Your task to perform on an android device: open sync settings in chrome Image 0: 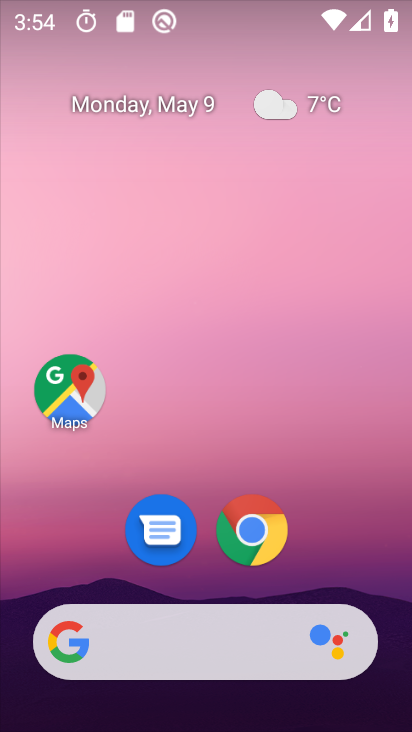
Step 0: click (236, 533)
Your task to perform on an android device: open sync settings in chrome Image 1: 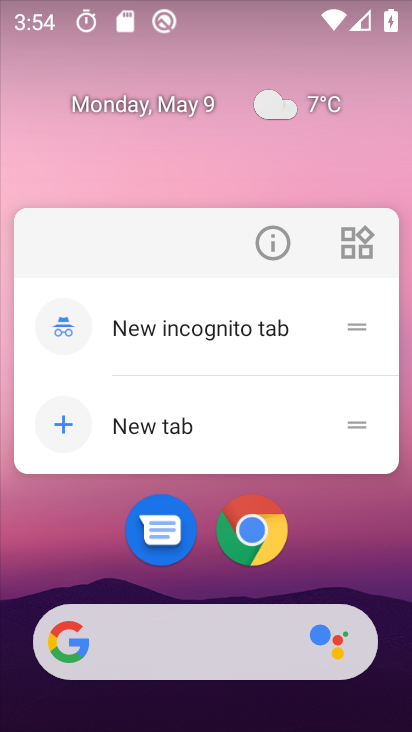
Step 1: click (246, 528)
Your task to perform on an android device: open sync settings in chrome Image 2: 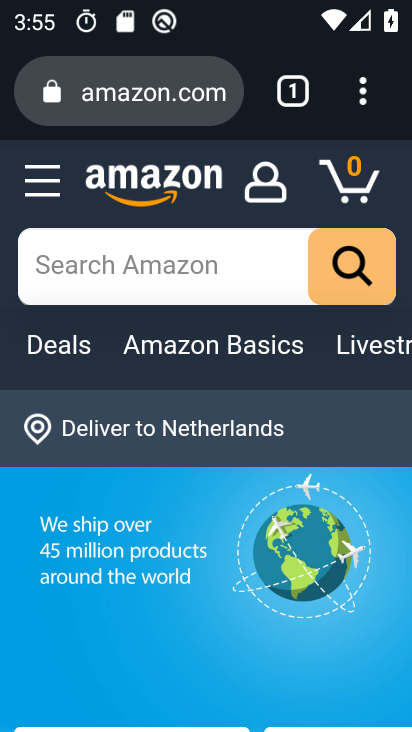
Step 2: drag from (366, 89) to (93, 554)
Your task to perform on an android device: open sync settings in chrome Image 3: 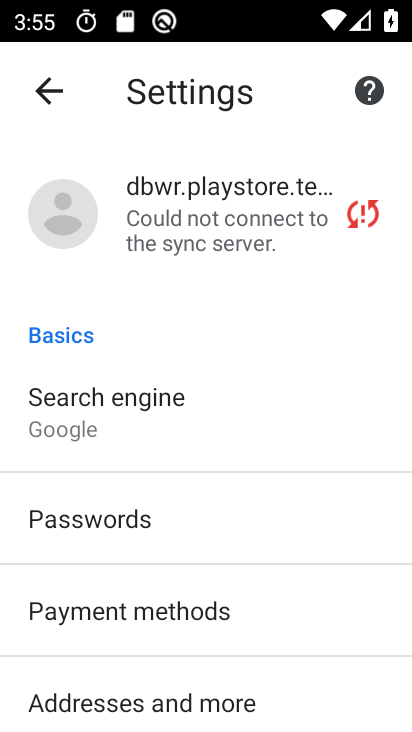
Step 3: click (217, 215)
Your task to perform on an android device: open sync settings in chrome Image 4: 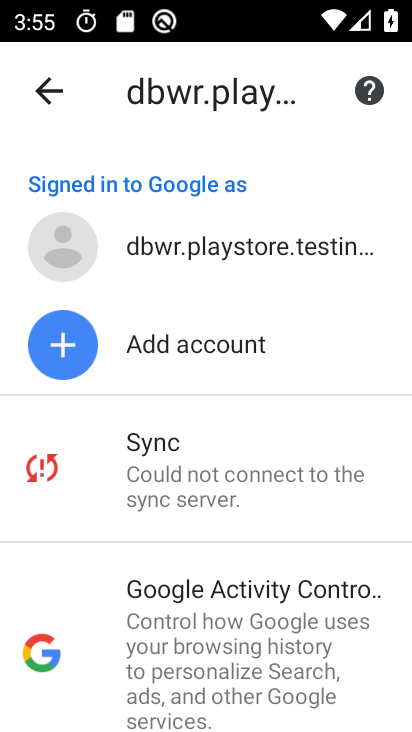
Step 4: task complete